Your task to perform on an android device: What's on my calendar tomorrow? Image 0: 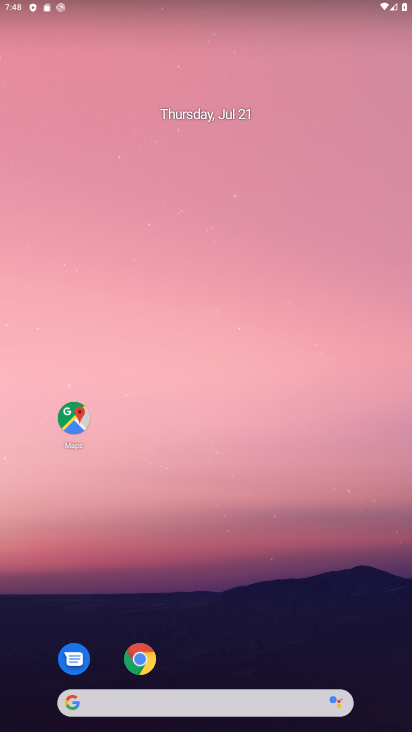
Step 0: drag from (268, 662) to (215, 257)
Your task to perform on an android device: What's on my calendar tomorrow? Image 1: 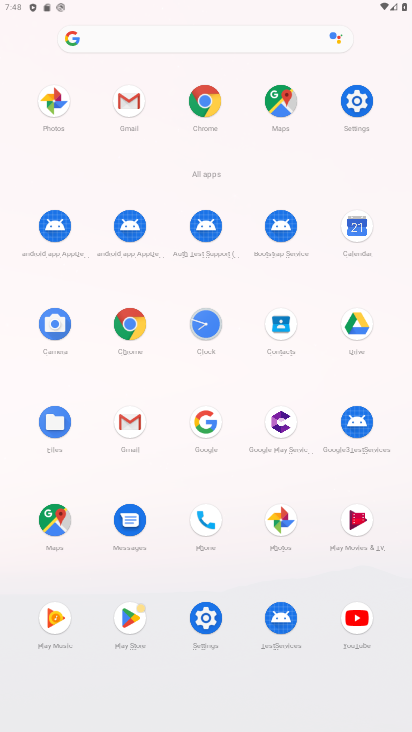
Step 1: click (345, 239)
Your task to perform on an android device: What's on my calendar tomorrow? Image 2: 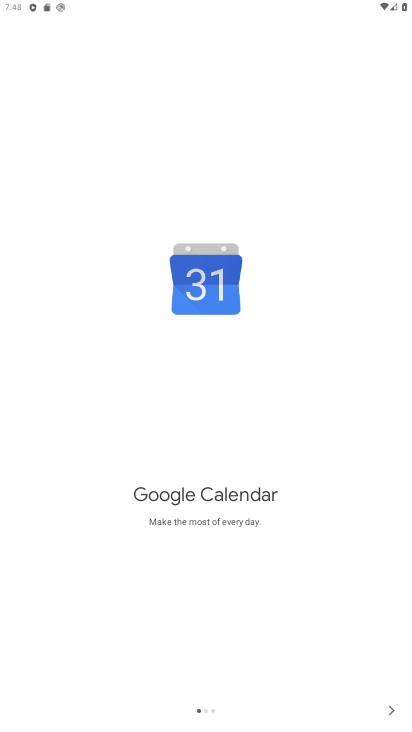
Step 2: click (394, 712)
Your task to perform on an android device: What's on my calendar tomorrow? Image 3: 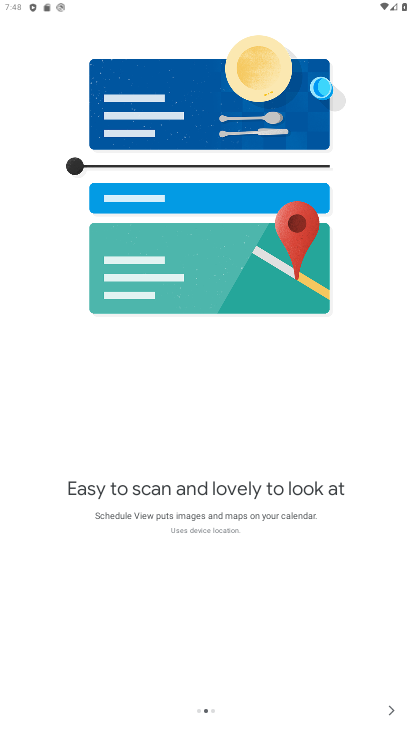
Step 3: click (394, 712)
Your task to perform on an android device: What's on my calendar tomorrow? Image 4: 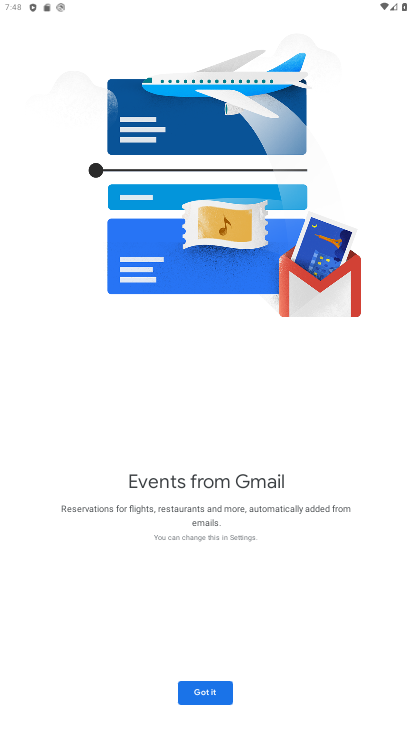
Step 4: click (217, 699)
Your task to perform on an android device: What's on my calendar tomorrow? Image 5: 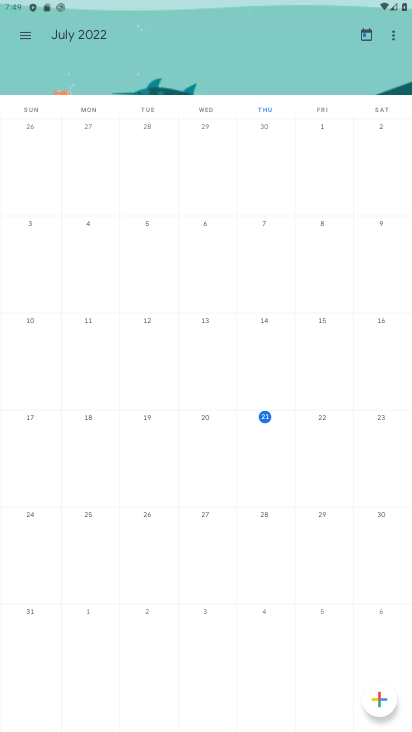
Step 5: click (16, 30)
Your task to perform on an android device: What's on my calendar tomorrow? Image 6: 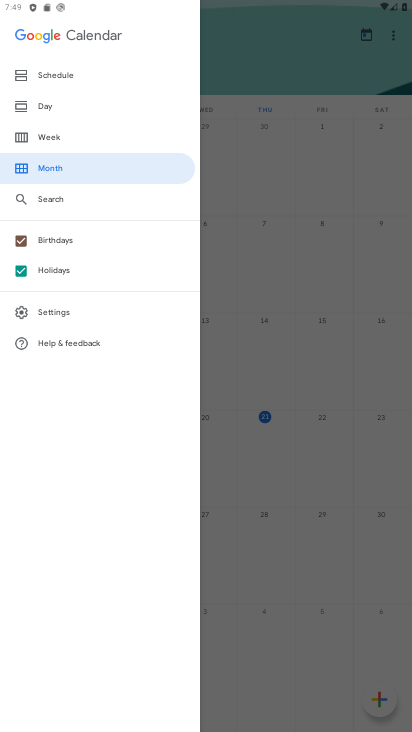
Step 6: click (39, 111)
Your task to perform on an android device: What's on my calendar tomorrow? Image 7: 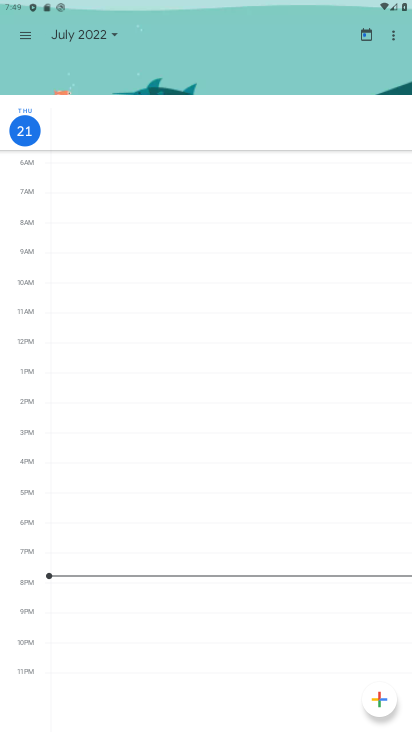
Step 7: task complete